Your task to perform on an android device: toggle priority inbox in the gmail app Image 0: 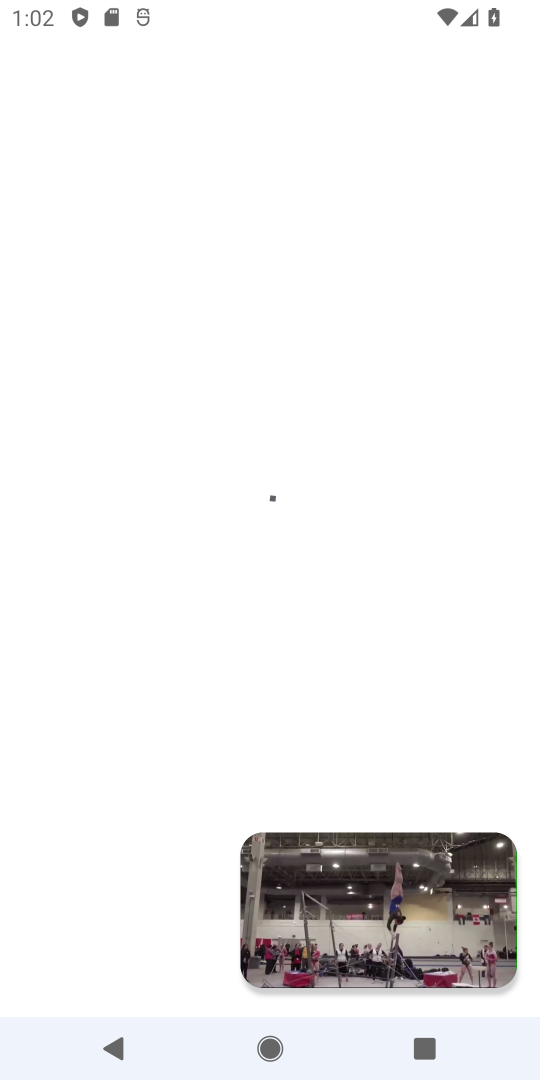
Step 0: press home button
Your task to perform on an android device: toggle priority inbox in the gmail app Image 1: 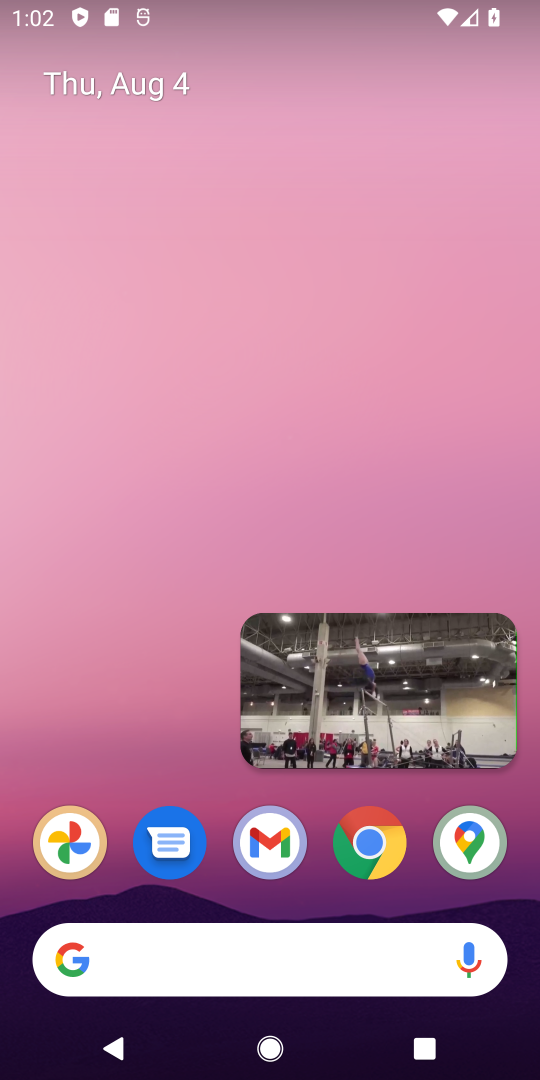
Step 1: click (267, 846)
Your task to perform on an android device: toggle priority inbox in the gmail app Image 2: 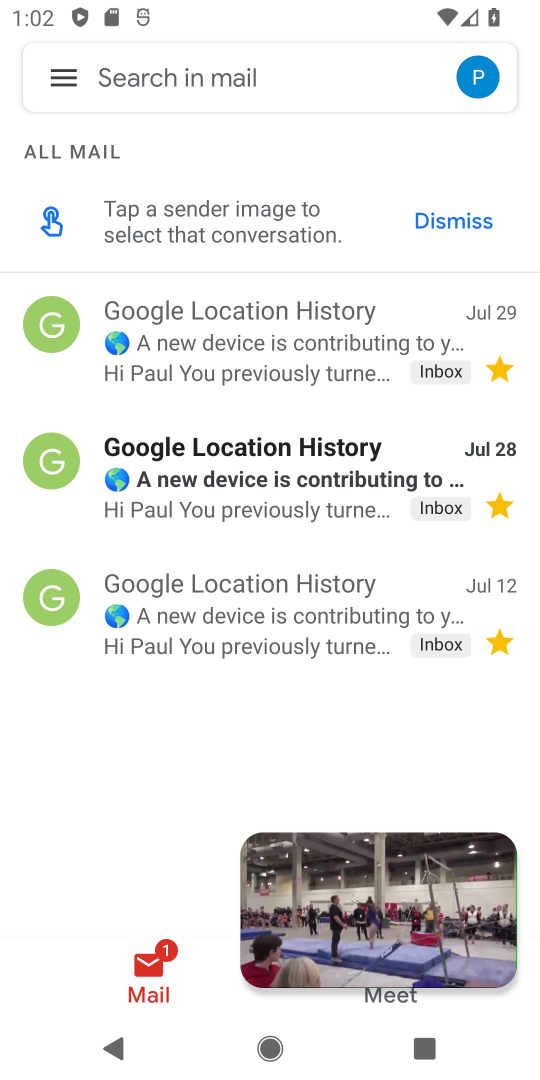
Step 2: click (51, 78)
Your task to perform on an android device: toggle priority inbox in the gmail app Image 3: 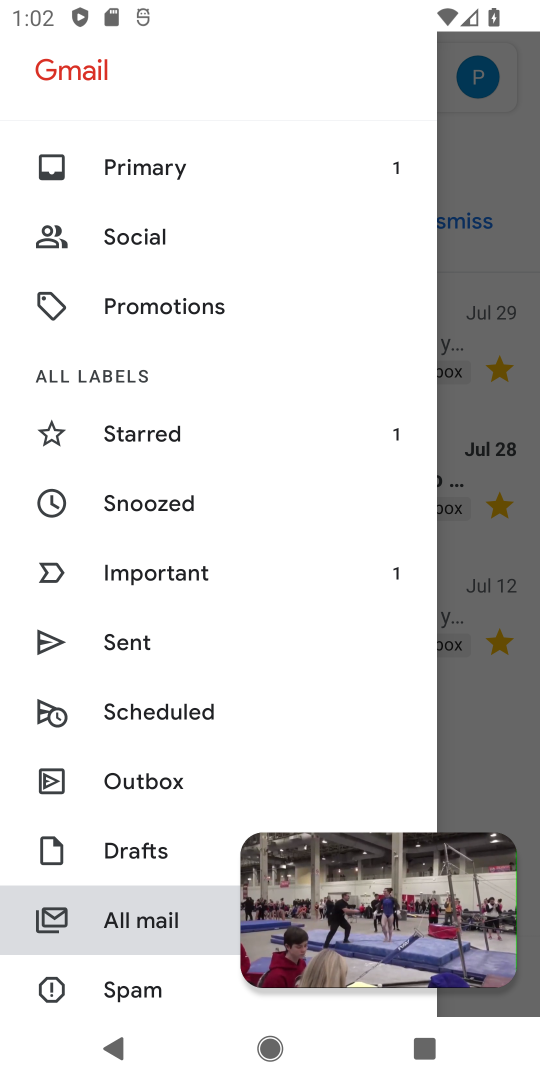
Step 3: drag from (93, 837) to (65, 301)
Your task to perform on an android device: toggle priority inbox in the gmail app Image 4: 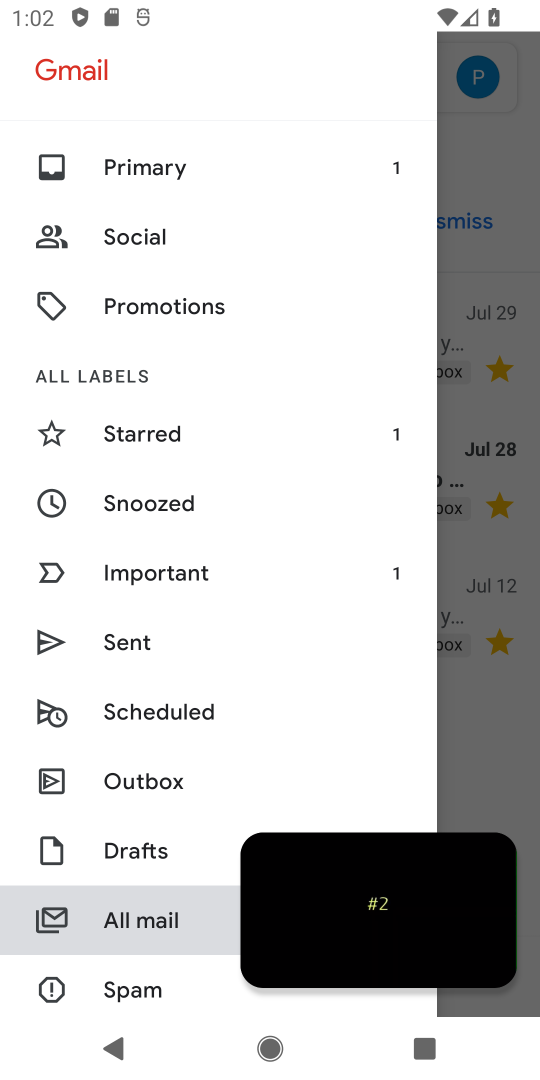
Step 4: drag from (153, 767) to (237, 220)
Your task to perform on an android device: toggle priority inbox in the gmail app Image 5: 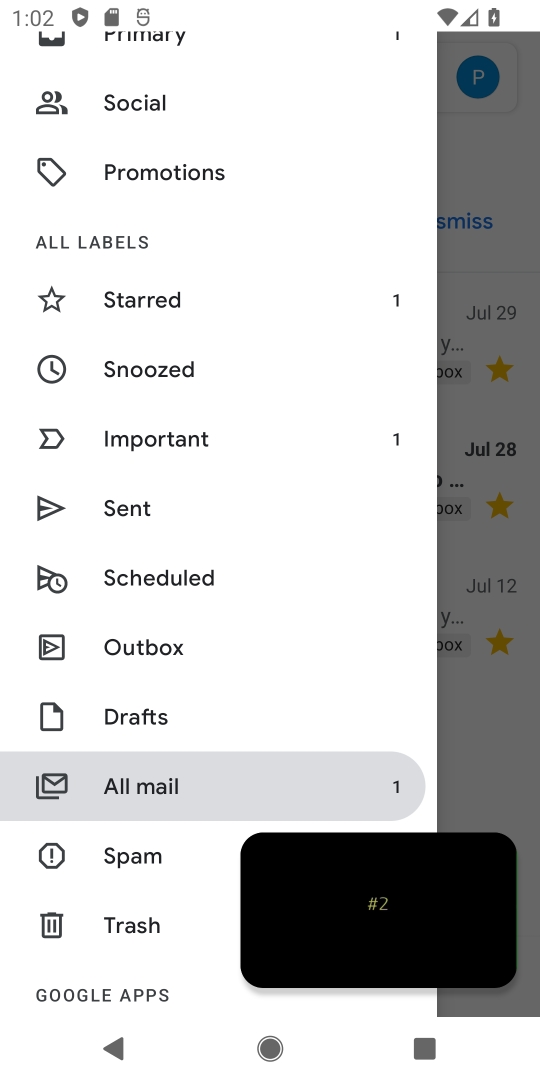
Step 5: drag from (167, 782) to (244, 0)
Your task to perform on an android device: toggle priority inbox in the gmail app Image 6: 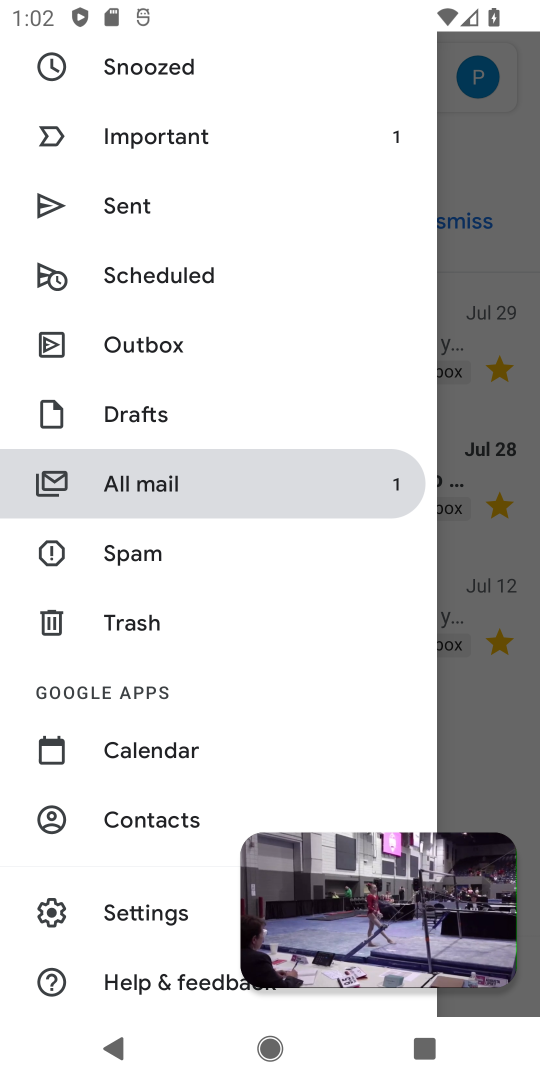
Step 6: click (170, 918)
Your task to perform on an android device: toggle priority inbox in the gmail app Image 7: 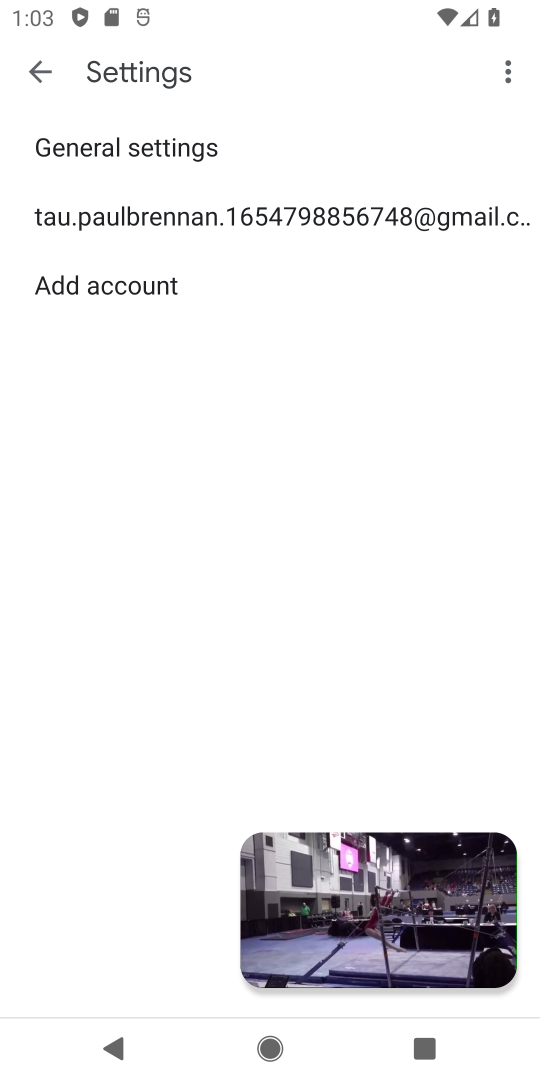
Step 7: click (359, 228)
Your task to perform on an android device: toggle priority inbox in the gmail app Image 8: 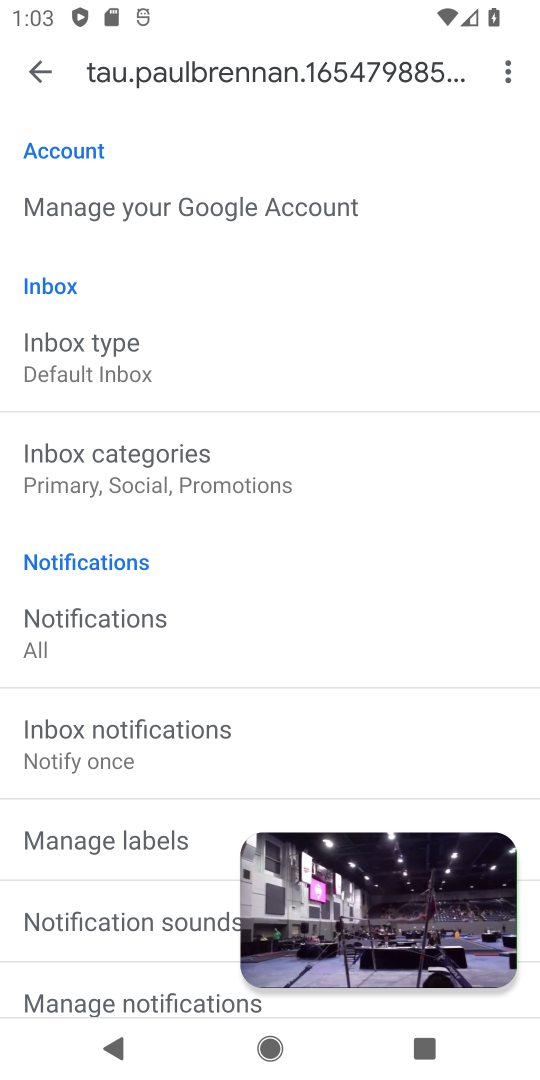
Step 8: click (62, 365)
Your task to perform on an android device: toggle priority inbox in the gmail app Image 9: 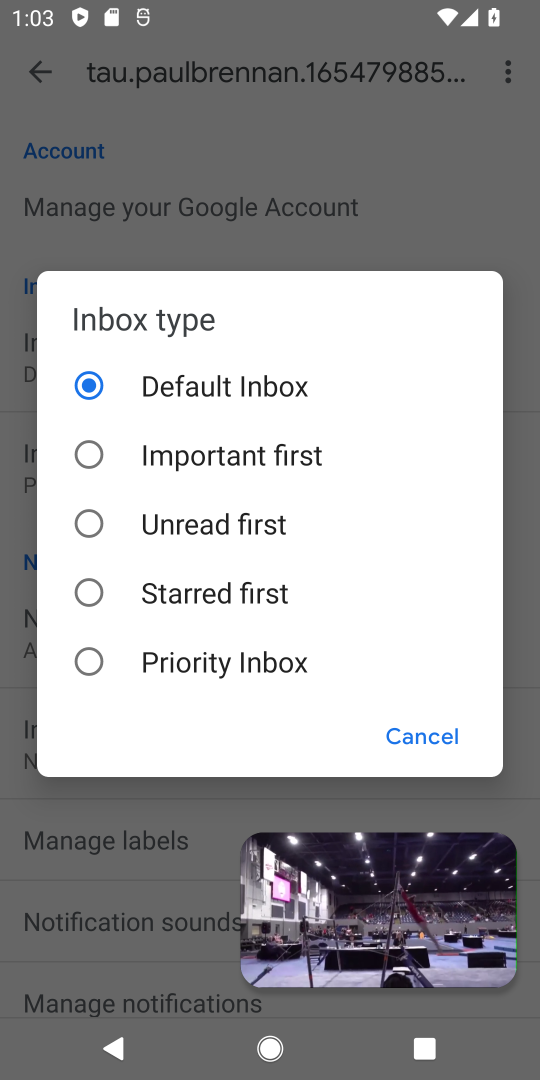
Step 9: click (135, 671)
Your task to perform on an android device: toggle priority inbox in the gmail app Image 10: 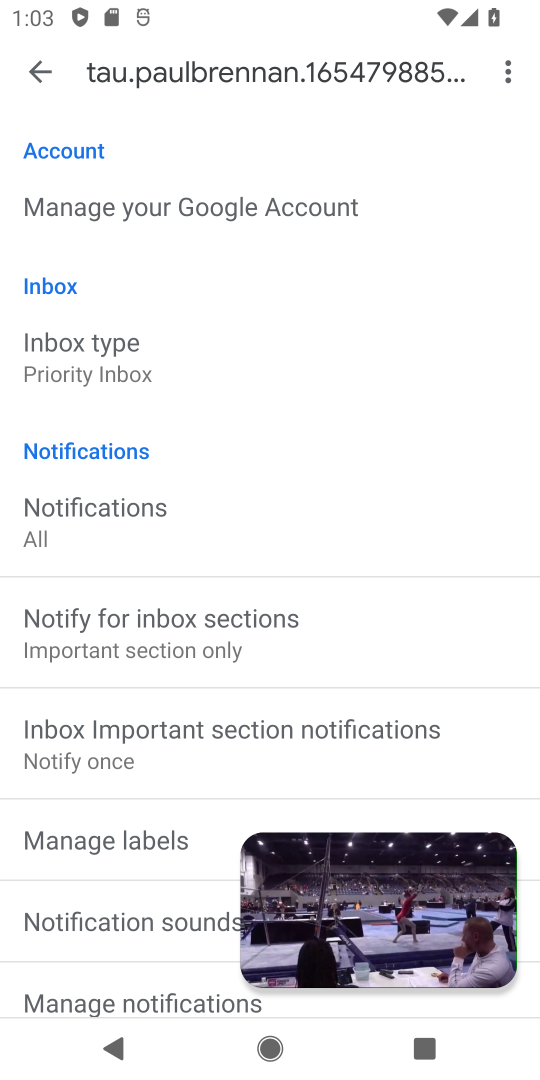
Step 10: task complete